Your task to perform on an android device: turn off data saver in the chrome app Image 0: 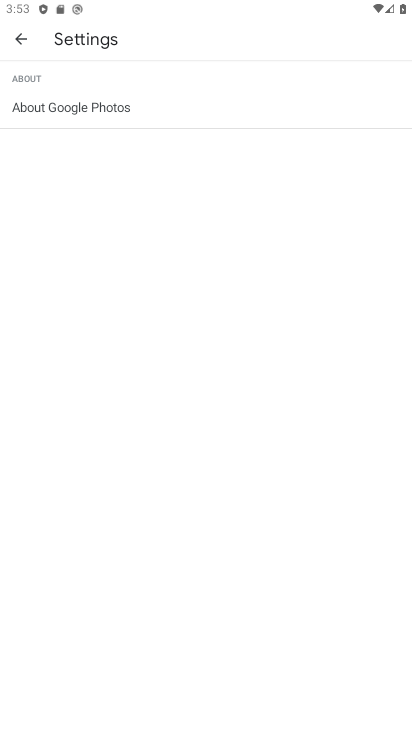
Step 0: press home button
Your task to perform on an android device: turn off data saver in the chrome app Image 1: 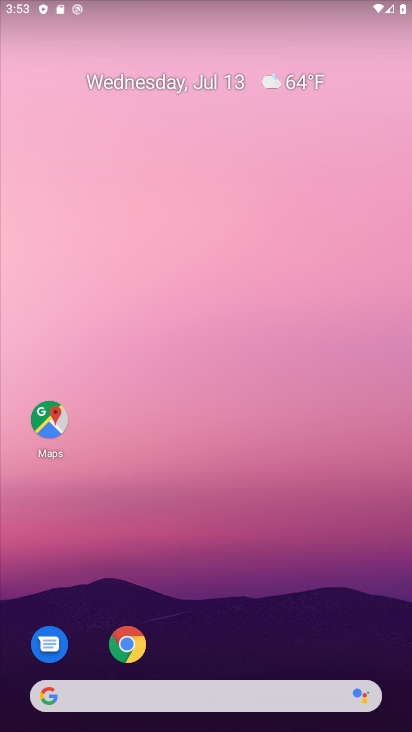
Step 1: click (122, 640)
Your task to perform on an android device: turn off data saver in the chrome app Image 2: 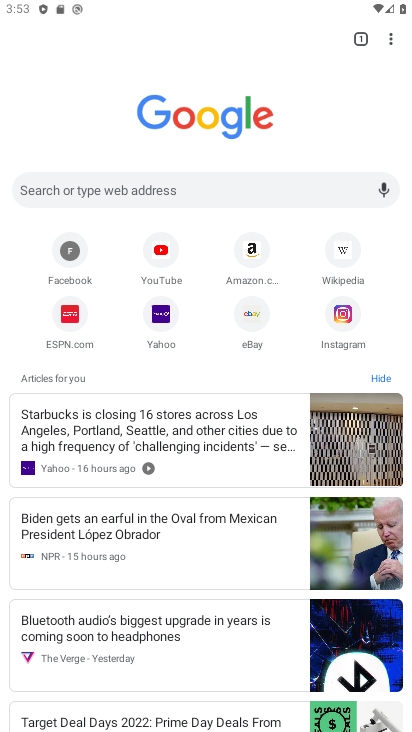
Step 2: click (395, 31)
Your task to perform on an android device: turn off data saver in the chrome app Image 3: 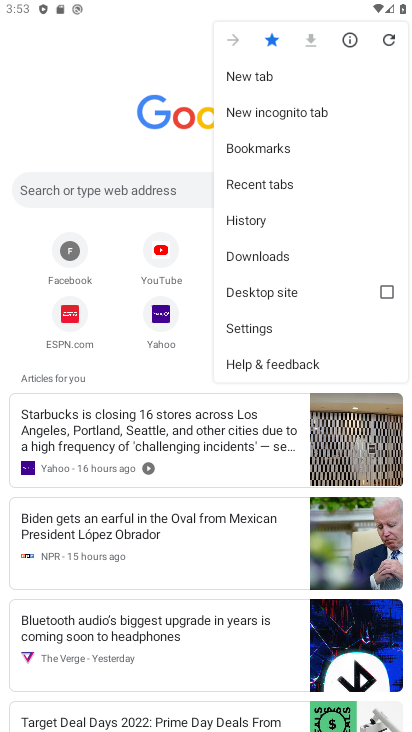
Step 3: click (261, 334)
Your task to perform on an android device: turn off data saver in the chrome app Image 4: 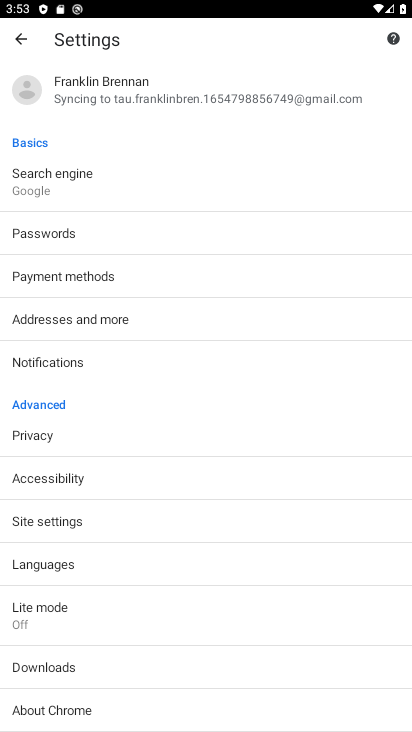
Step 4: click (39, 603)
Your task to perform on an android device: turn off data saver in the chrome app Image 5: 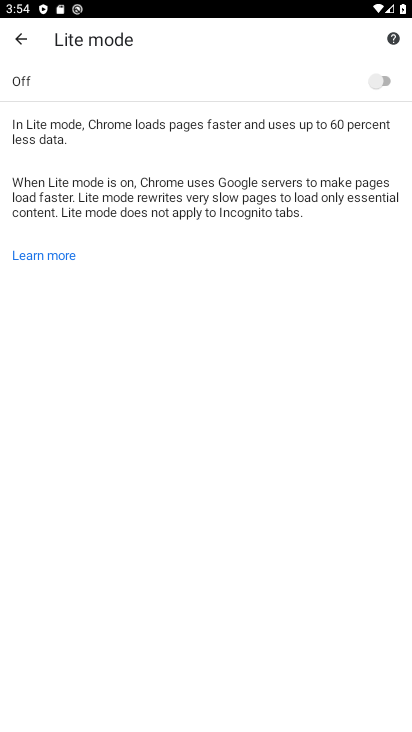
Step 5: task complete